Your task to perform on an android device: Set the phone to "Do not disturb". Image 0: 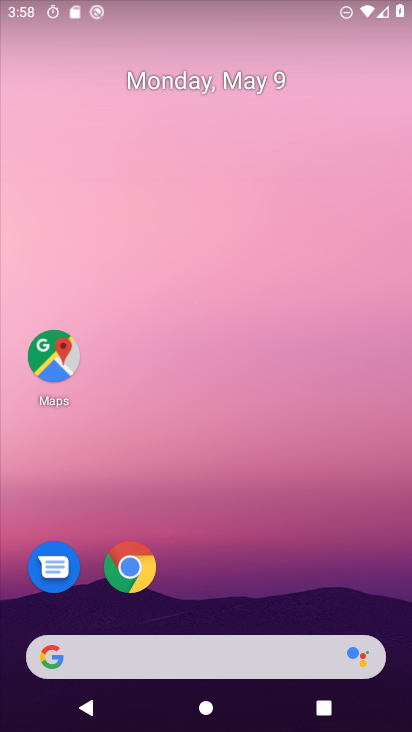
Step 0: drag from (240, 553) to (238, 6)
Your task to perform on an android device: Set the phone to "Do not disturb". Image 1: 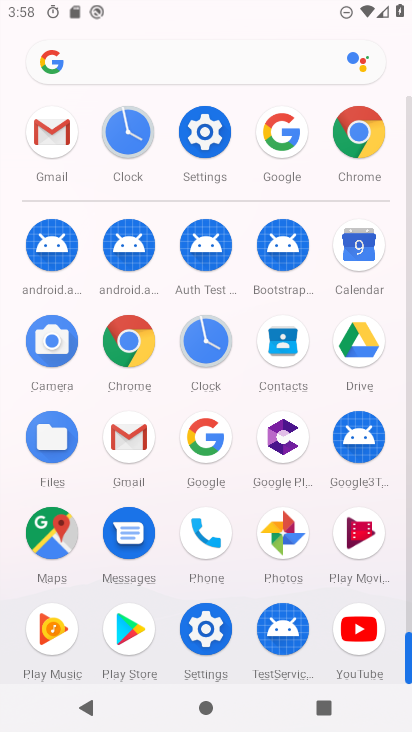
Step 1: click (207, 128)
Your task to perform on an android device: Set the phone to "Do not disturb". Image 2: 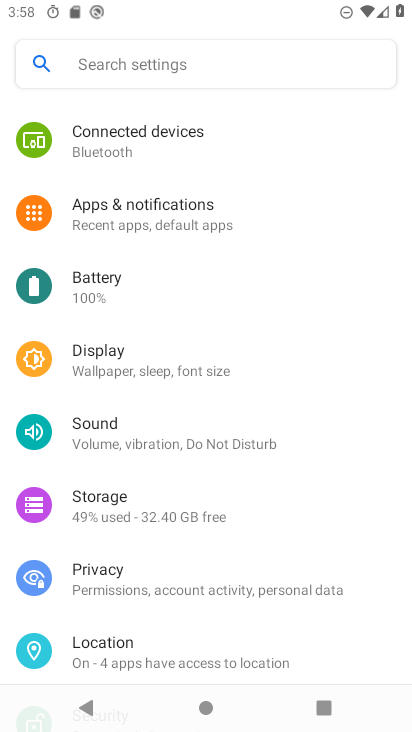
Step 2: click (175, 436)
Your task to perform on an android device: Set the phone to "Do not disturb". Image 3: 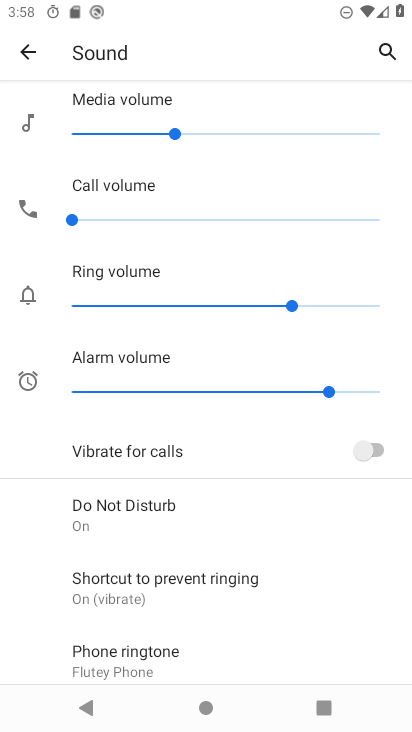
Step 3: click (198, 492)
Your task to perform on an android device: Set the phone to "Do not disturb". Image 4: 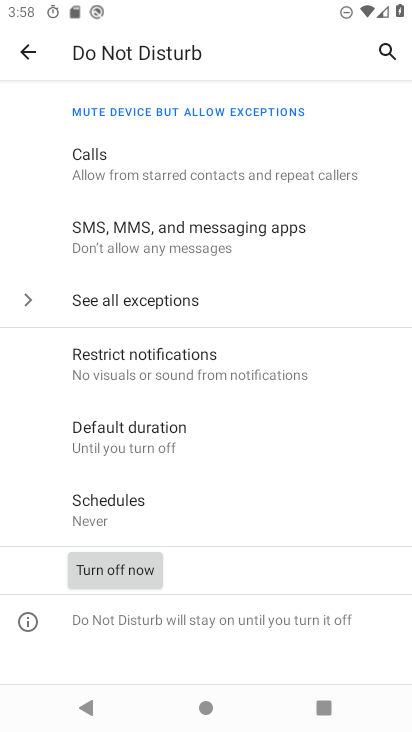
Step 4: task complete